Your task to perform on an android device: turn off sleep mode Image 0: 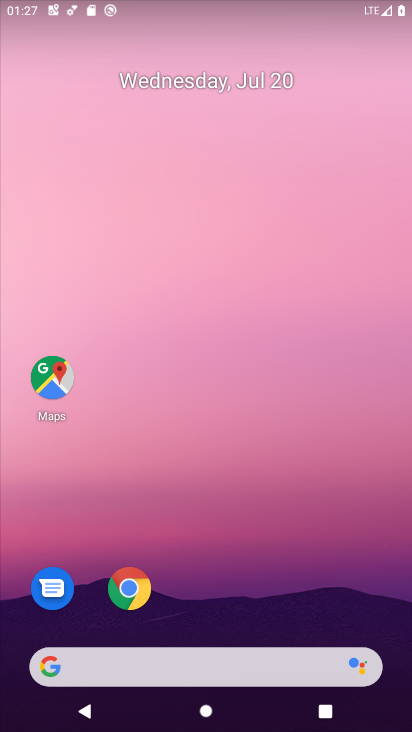
Step 0: drag from (225, 624) to (179, 272)
Your task to perform on an android device: turn off sleep mode Image 1: 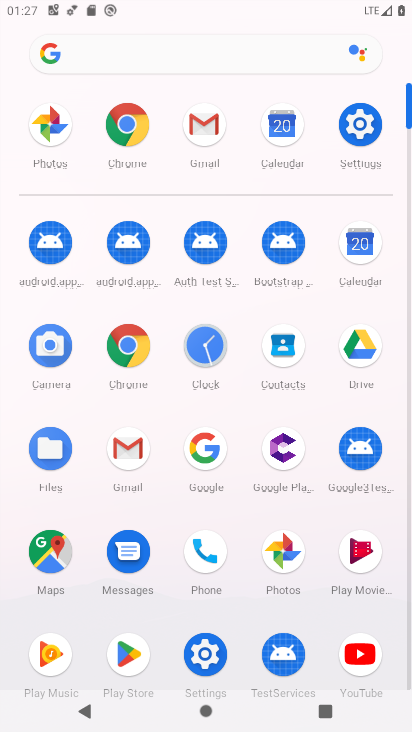
Step 1: click (363, 120)
Your task to perform on an android device: turn off sleep mode Image 2: 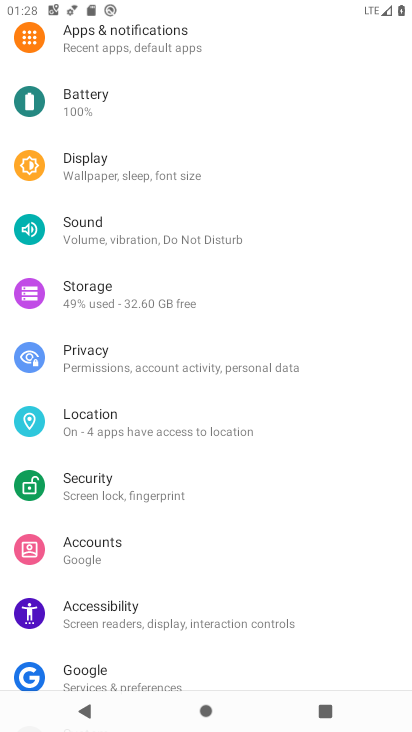
Step 2: task complete